Your task to perform on an android device: turn on improve location accuracy Image 0: 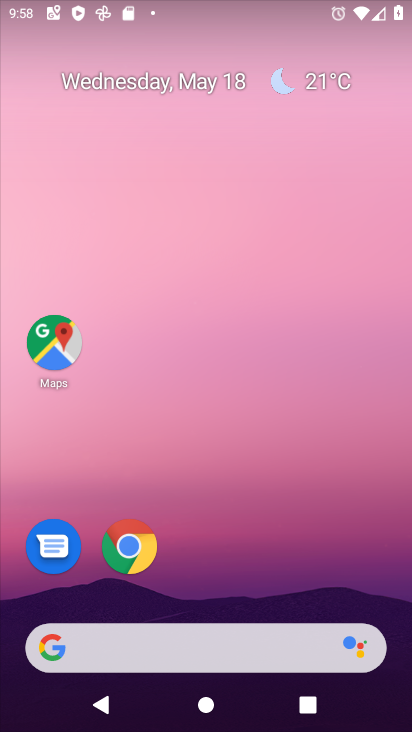
Step 0: drag from (399, 620) to (277, 157)
Your task to perform on an android device: turn on improve location accuracy Image 1: 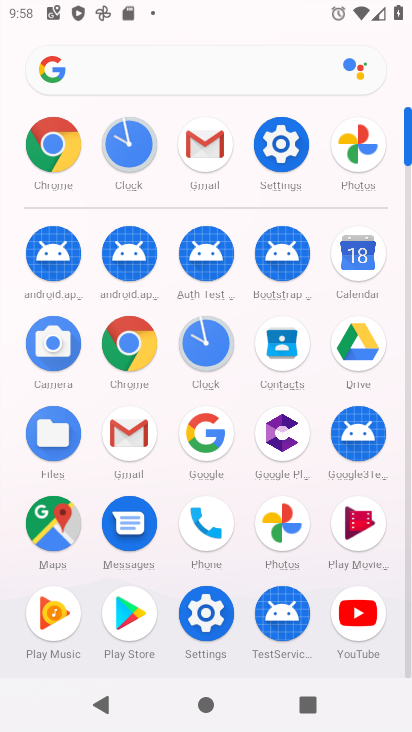
Step 1: click (273, 155)
Your task to perform on an android device: turn on improve location accuracy Image 2: 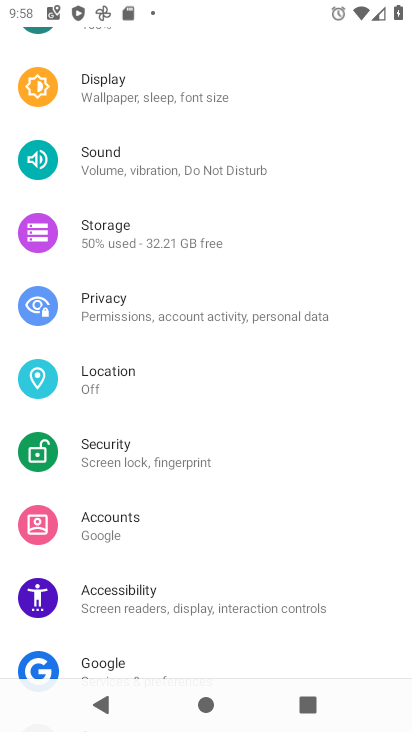
Step 2: click (158, 400)
Your task to perform on an android device: turn on improve location accuracy Image 3: 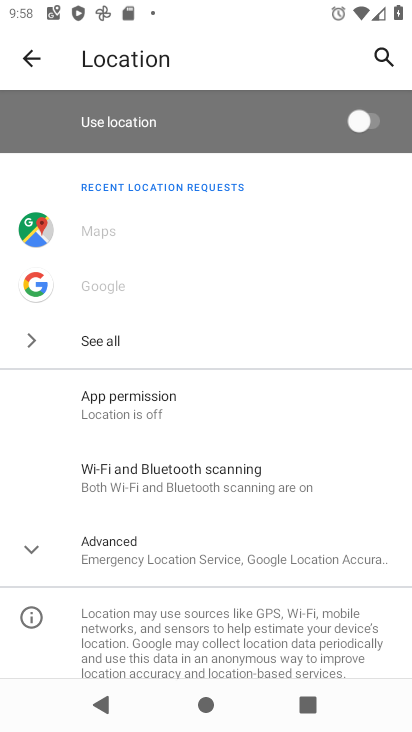
Step 3: click (136, 542)
Your task to perform on an android device: turn on improve location accuracy Image 4: 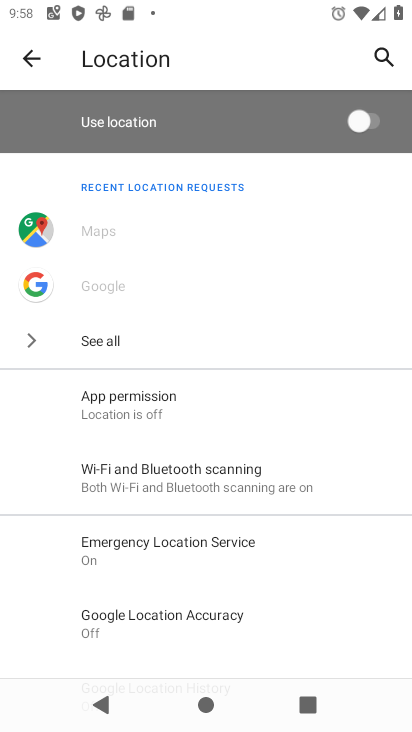
Step 4: click (171, 613)
Your task to perform on an android device: turn on improve location accuracy Image 5: 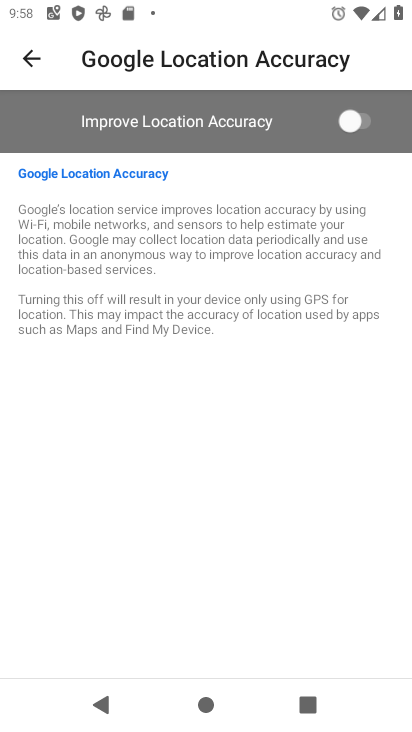
Step 5: click (347, 136)
Your task to perform on an android device: turn on improve location accuracy Image 6: 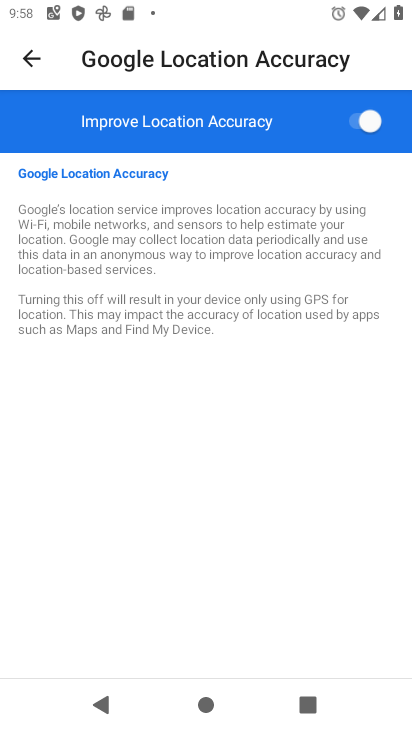
Step 6: task complete